Your task to perform on an android device: all mails in gmail Image 0: 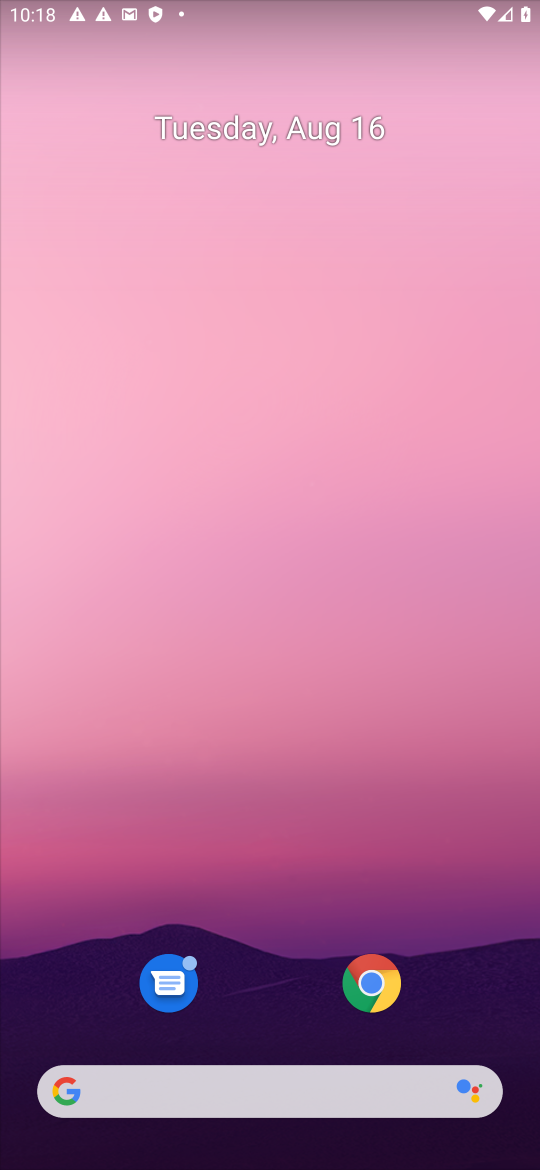
Step 0: drag from (286, 1055) to (340, 430)
Your task to perform on an android device: all mails in gmail Image 1: 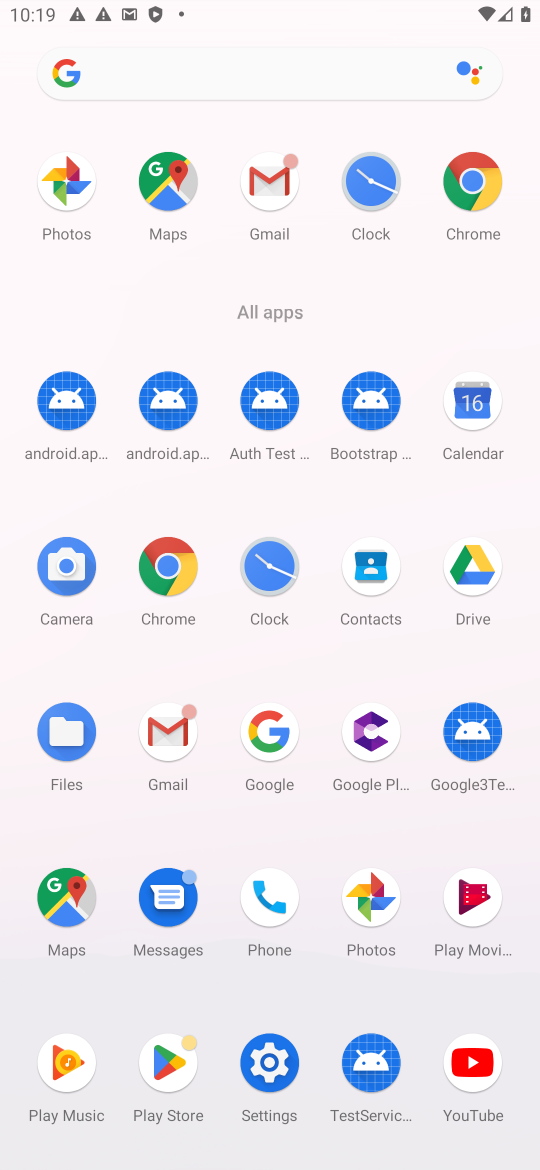
Step 1: click (181, 711)
Your task to perform on an android device: all mails in gmail Image 2: 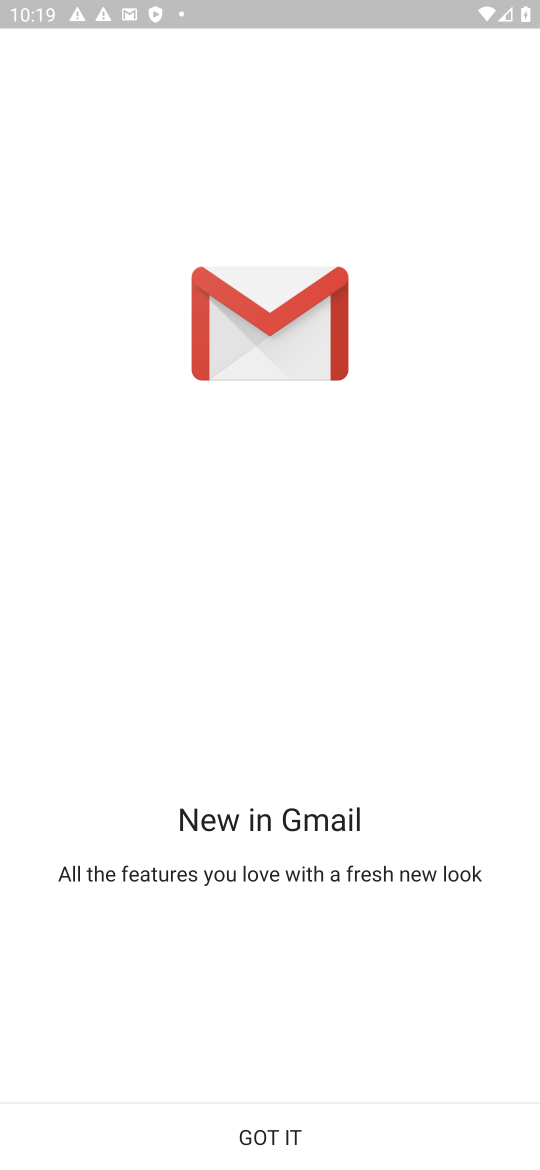
Step 2: click (274, 1150)
Your task to perform on an android device: all mails in gmail Image 3: 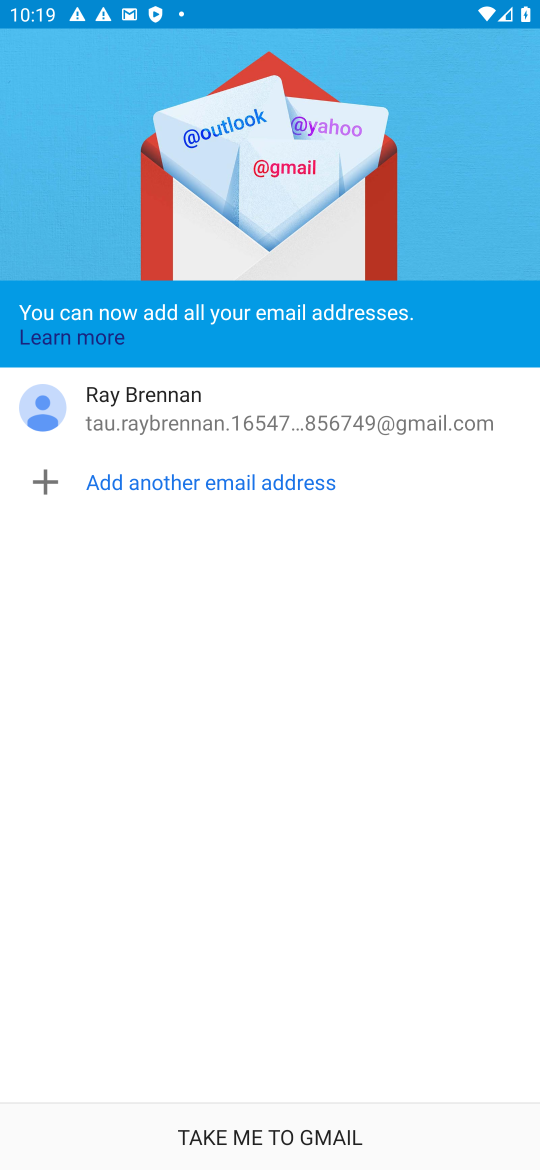
Step 3: click (266, 1146)
Your task to perform on an android device: all mails in gmail Image 4: 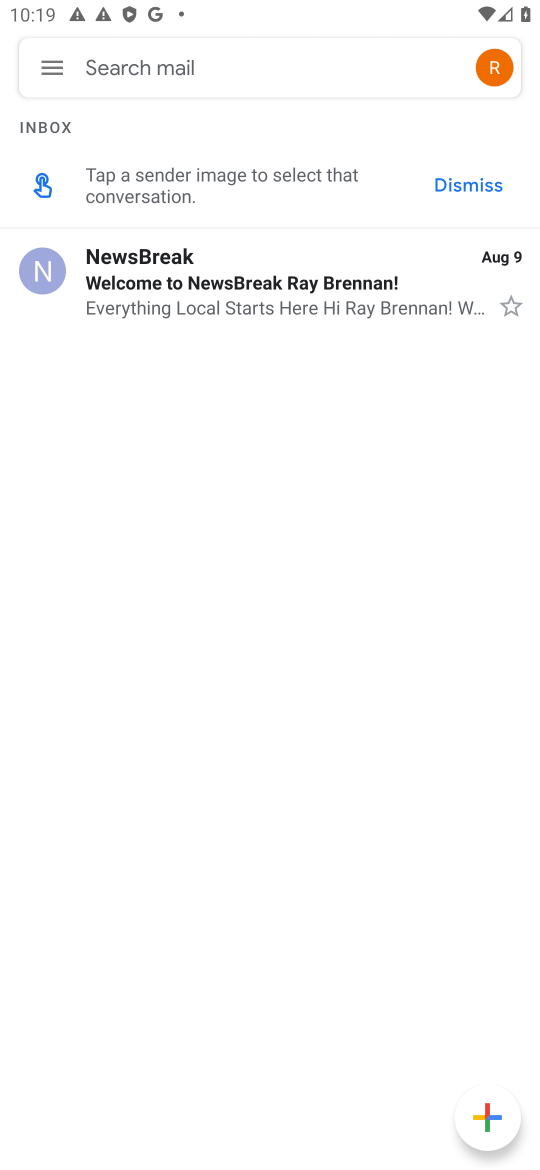
Step 4: click (47, 71)
Your task to perform on an android device: all mails in gmail Image 5: 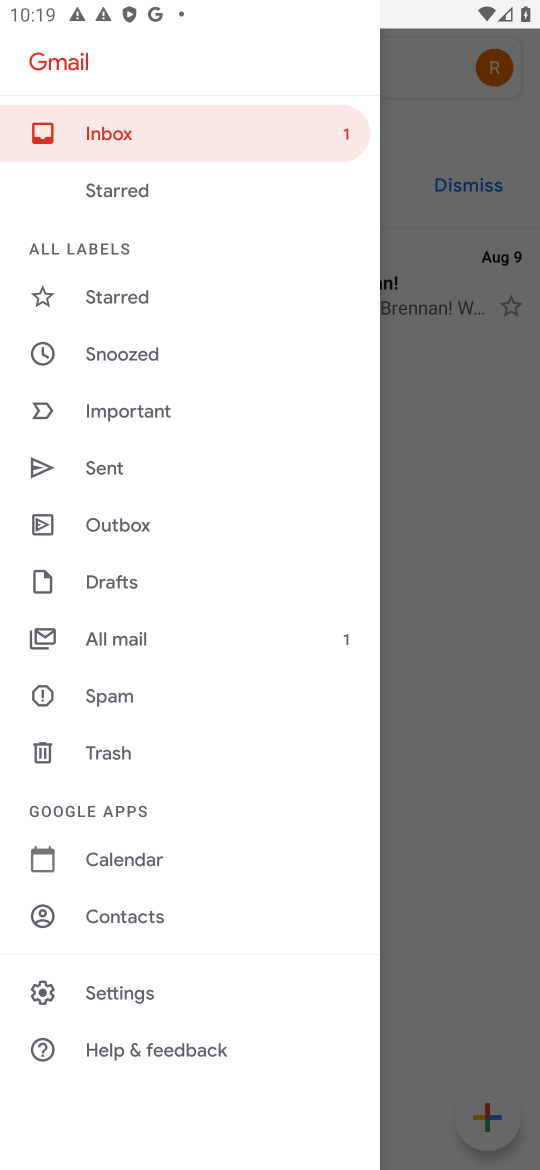
Step 5: click (113, 631)
Your task to perform on an android device: all mails in gmail Image 6: 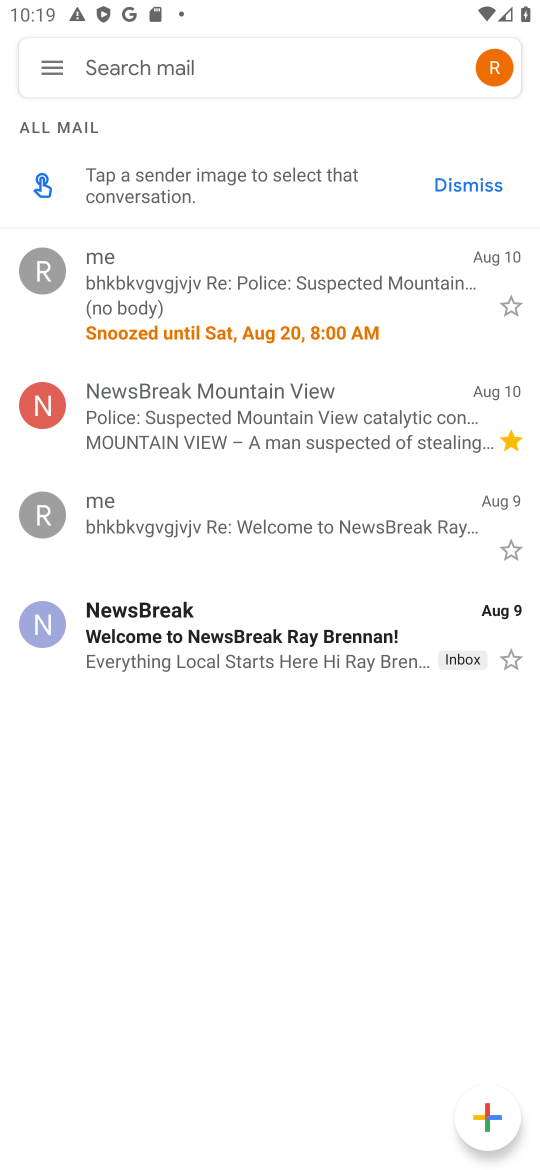
Step 6: task complete